Your task to perform on an android device: Show me popular videos on Youtube Image 0: 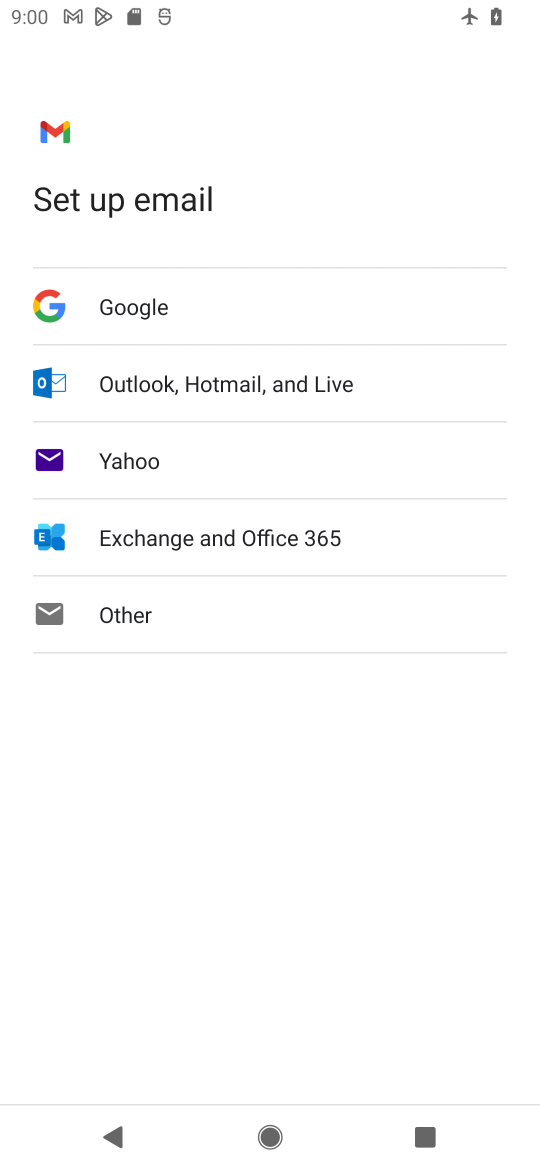
Step 0: press home button
Your task to perform on an android device: Show me popular videos on Youtube Image 1: 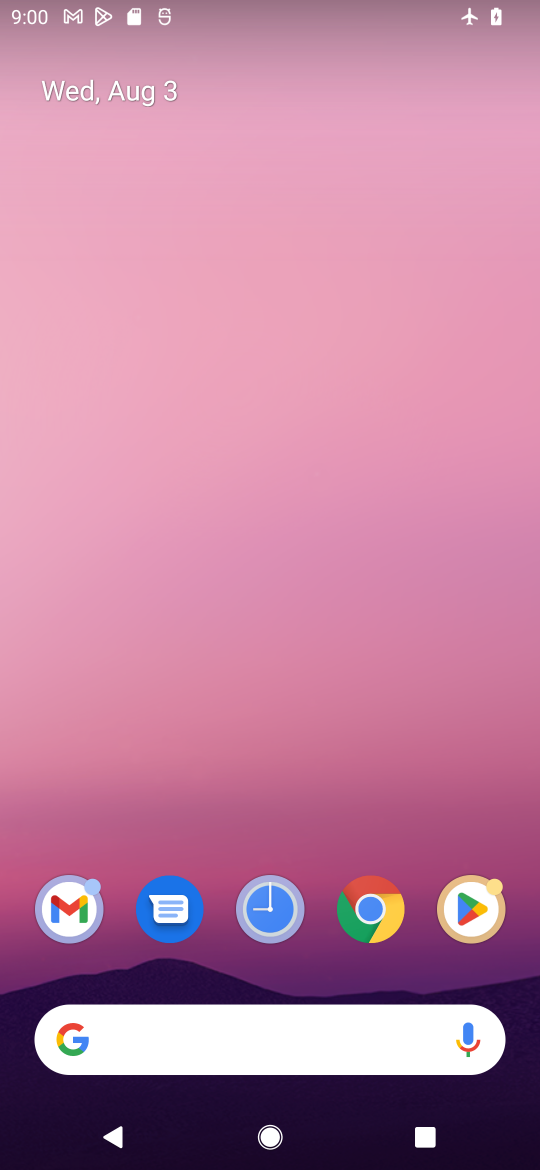
Step 1: drag from (321, 825) to (340, 339)
Your task to perform on an android device: Show me popular videos on Youtube Image 2: 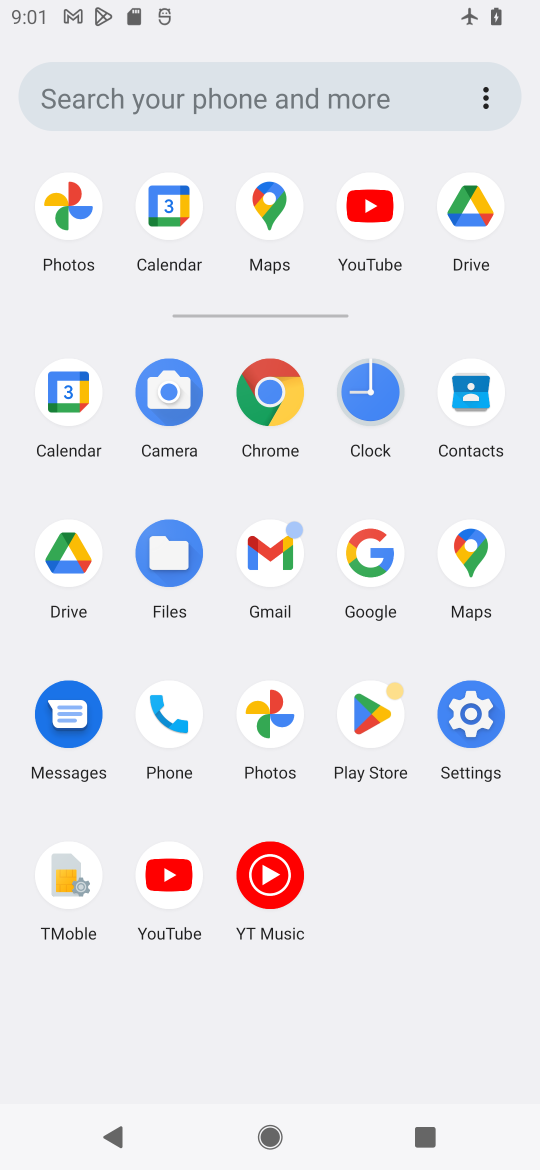
Step 2: click (186, 876)
Your task to perform on an android device: Show me popular videos on Youtube Image 3: 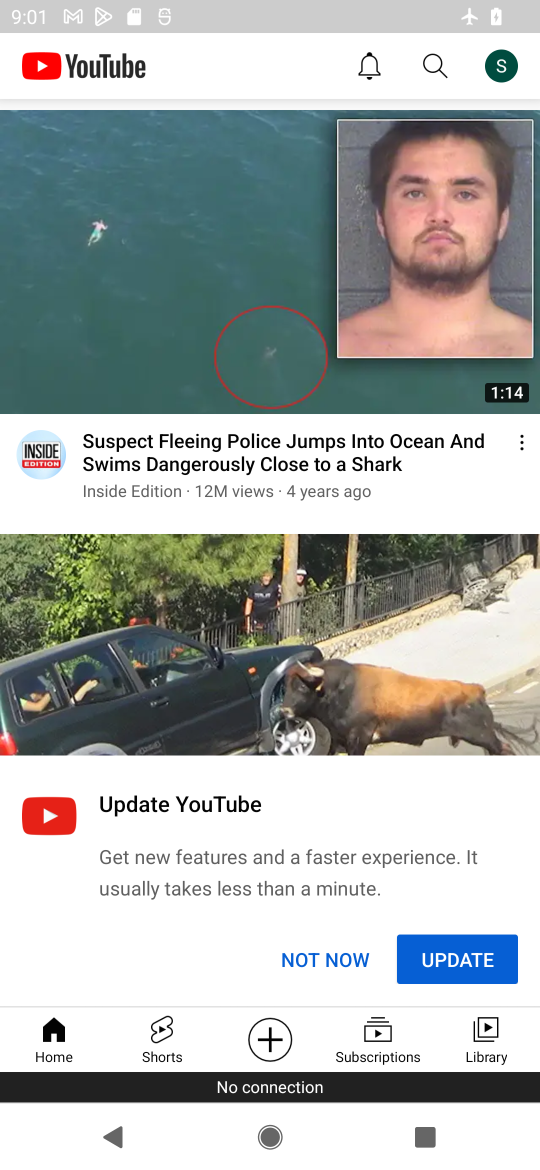
Step 3: task complete